Your task to perform on an android device: turn on location history Image 0: 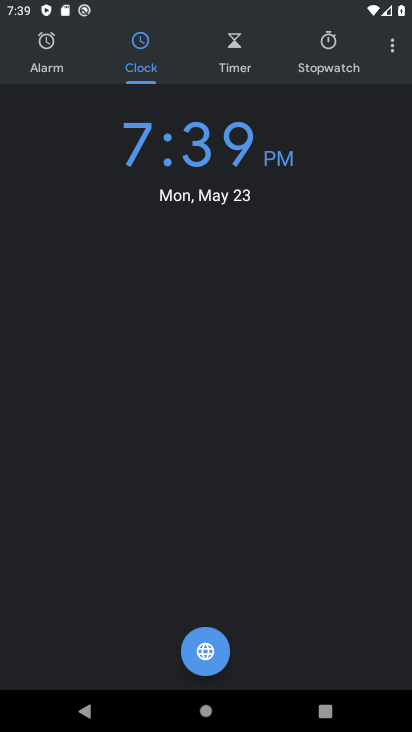
Step 0: press home button
Your task to perform on an android device: turn on location history Image 1: 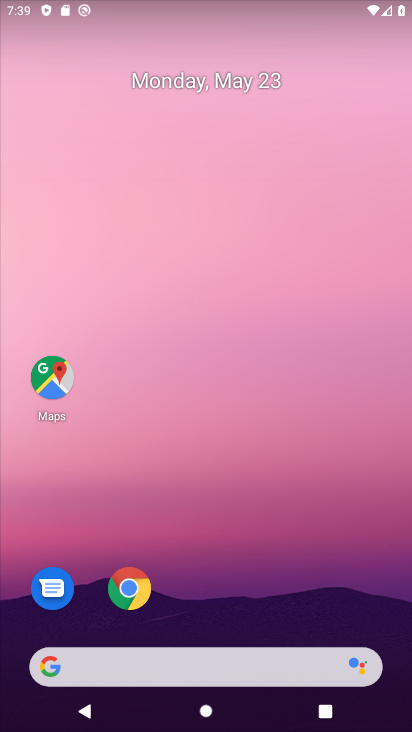
Step 1: drag from (394, 685) to (384, 129)
Your task to perform on an android device: turn on location history Image 2: 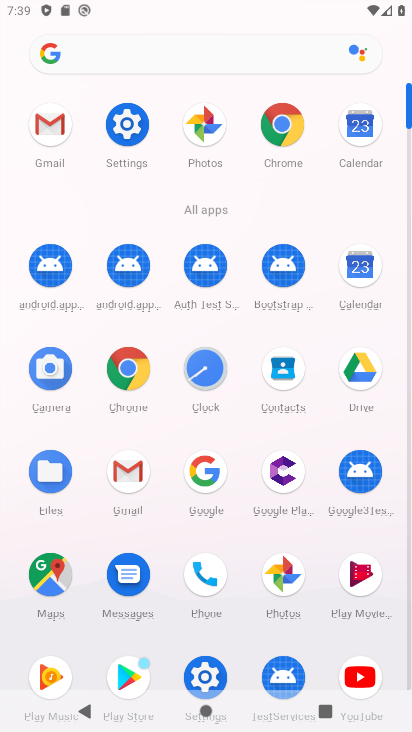
Step 2: click (125, 133)
Your task to perform on an android device: turn on location history Image 3: 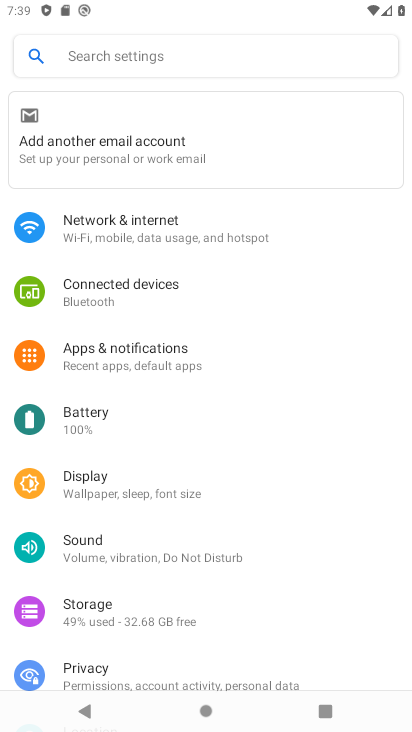
Step 3: drag from (316, 639) to (294, 397)
Your task to perform on an android device: turn on location history Image 4: 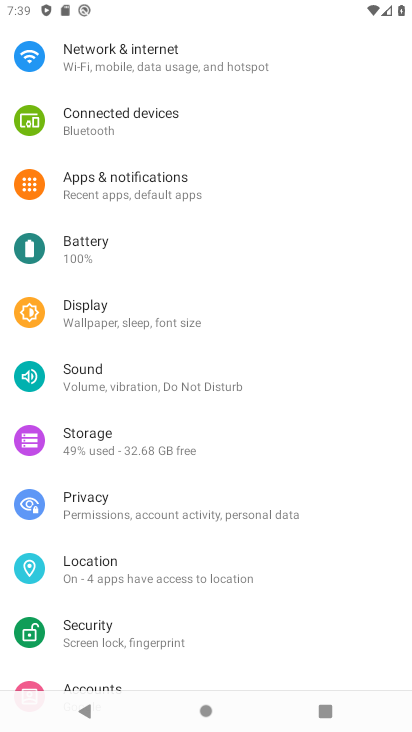
Step 4: click (85, 570)
Your task to perform on an android device: turn on location history Image 5: 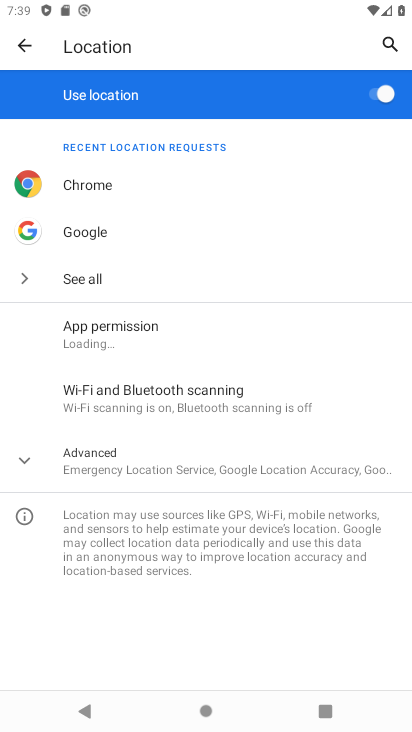
Step 5: click (15, 456)
Your task to perform on an android device: turn on location history Image 6: 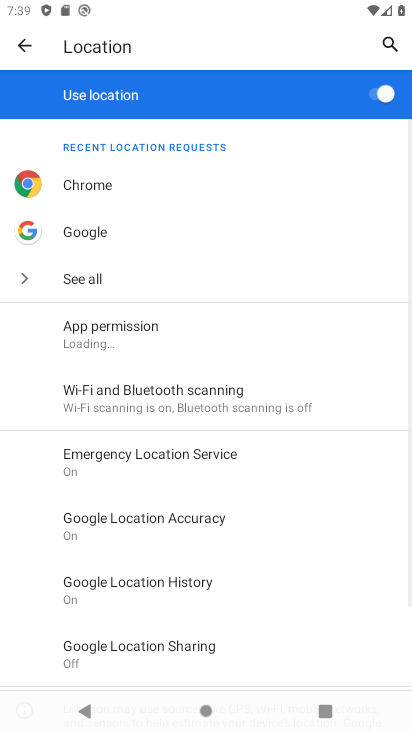
Step 6: drag from (301, 635) to (294, 301)
Your task to perform on an android device: turn on location history Image 7: 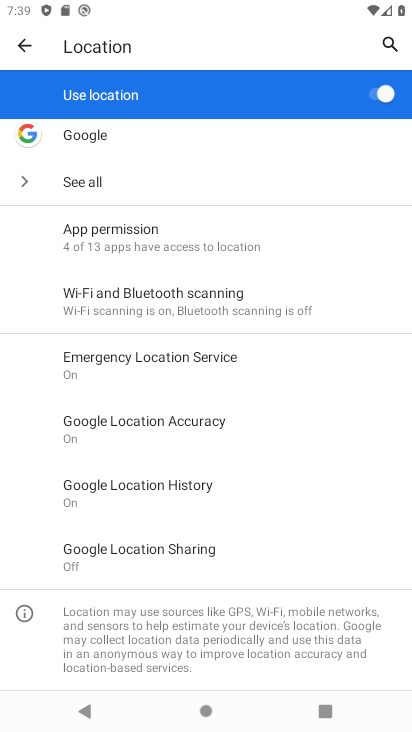
Step 7: click (119, 488)
Your task to perform on an android device: turn on location history Image 8: 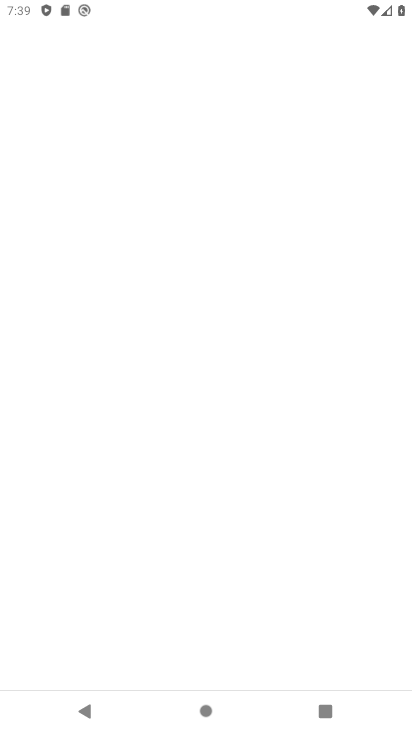
Step 8: task complete